Your task to perform on an android device: toggle notification dots Image 0: 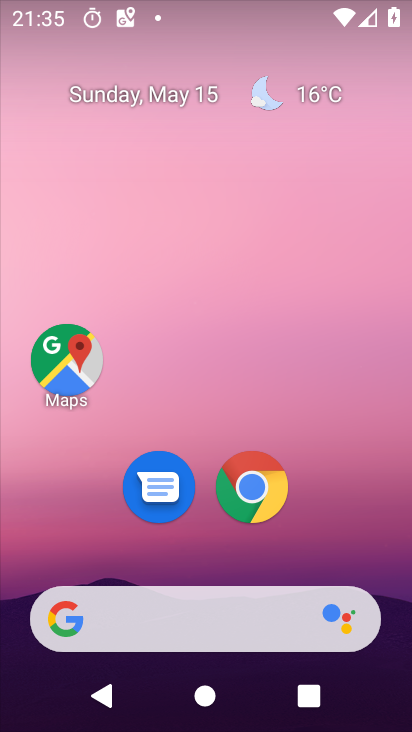
Step 0: drag from (387, 293) to (378, 116)
Your task to perform on an android device: toggle notification dots Image 1: 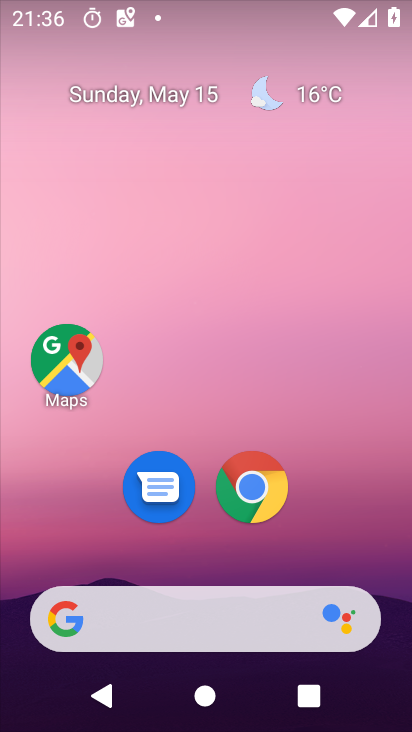
Step 1: drag from (369, 505) to (370, 189)
Your task to perform on an android device: toggle notification dots Image 2: 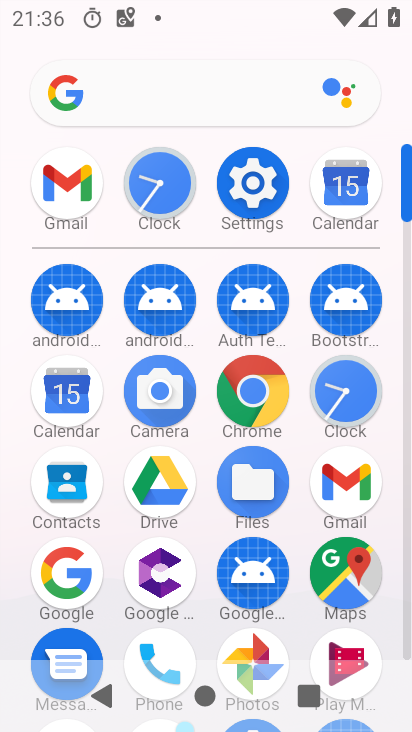
Step 2: click (244, 190)
Your task to perform on an android device: toggle notification dots Image 3: 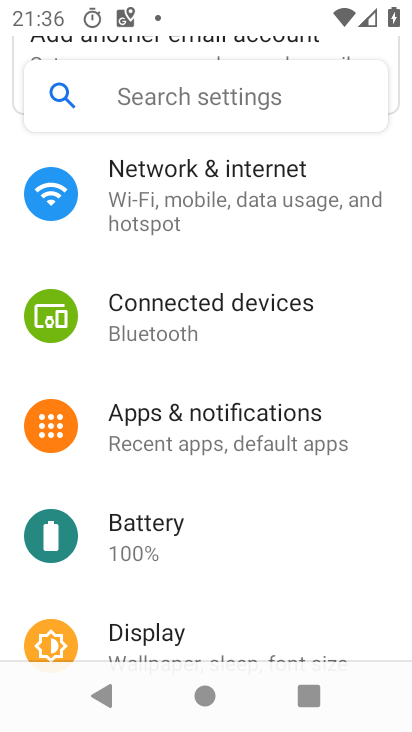
Step 3: click (175, 422)
Your task to perform on an android device: toggle notification dots Image 4: 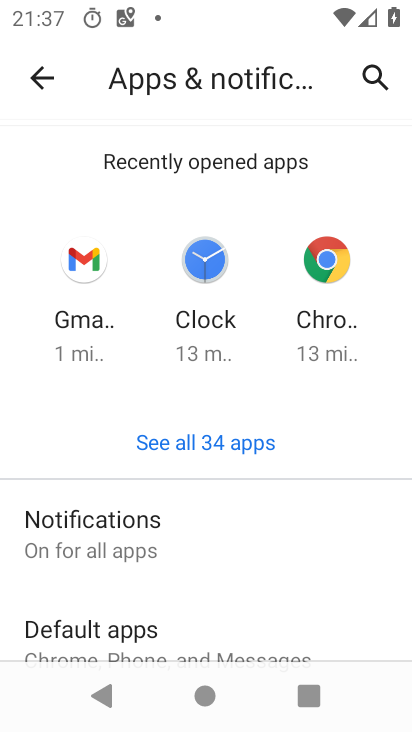
Step 4: click (61, 534)
Your task to perform on an android device: toggle notification dots Image 5: 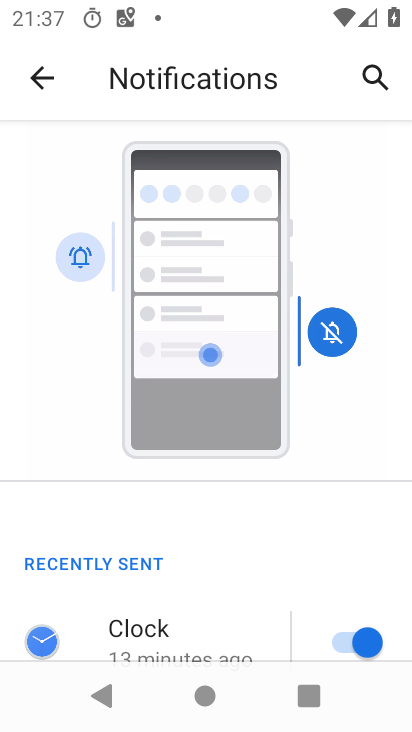
Step 5: drag from (238, 624) to (243, 275)
Your task to perform on an android device: toggle notification dots Image 6: 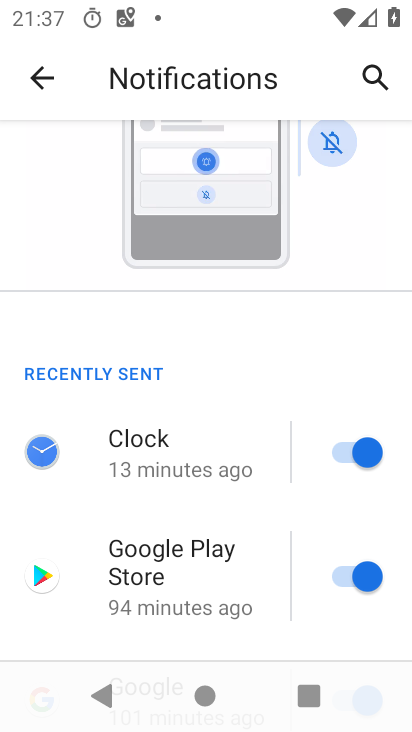
Step 6: drag from (271, 620) to (255, 309)
Your task to perform on an android device: toggle notification dots Image 7: 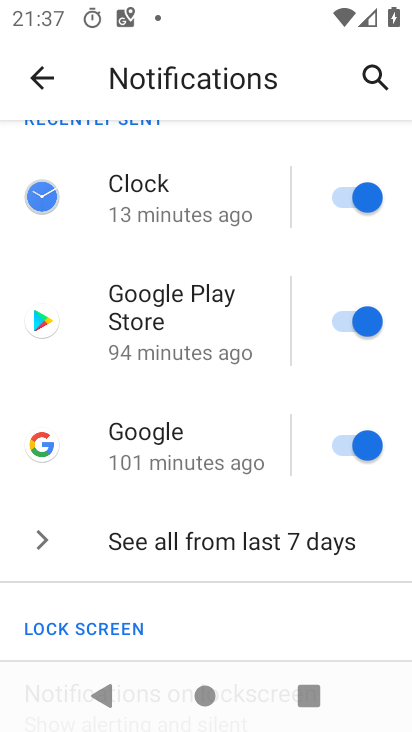
Step 7: drag from (244, 502) to (242, 393)
Your task to perform on an android device: toggle notification dots Image 8: 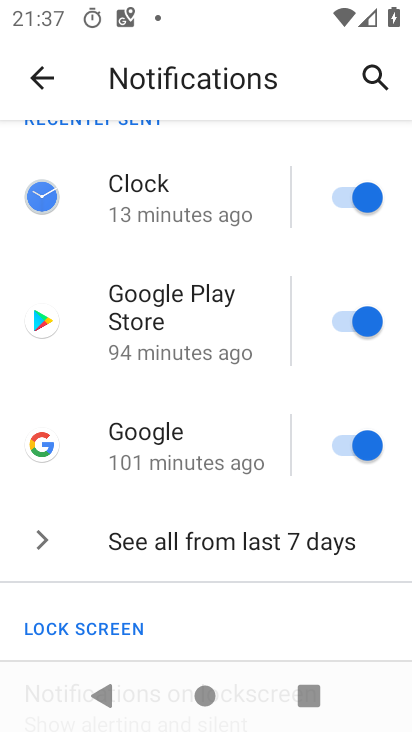
Step 8: drag from (242, 624) to (243, 331)
Your task to perform on an android device: toggle notification dots Image 9: 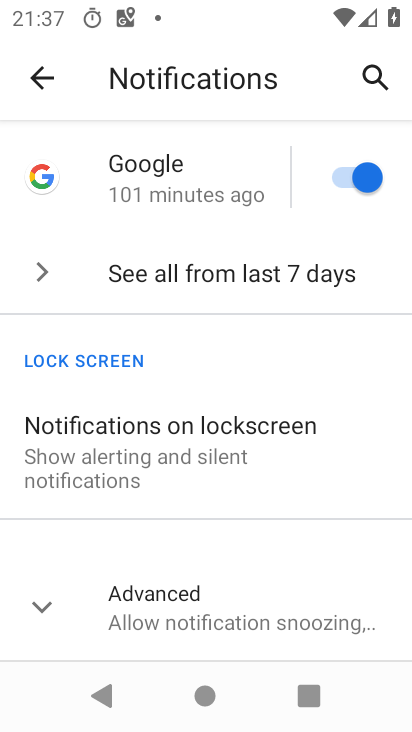
Step 9: drag from (251, 593) to (230, 315)
Your task to perform on an android device: toggle notification dots Image 10: 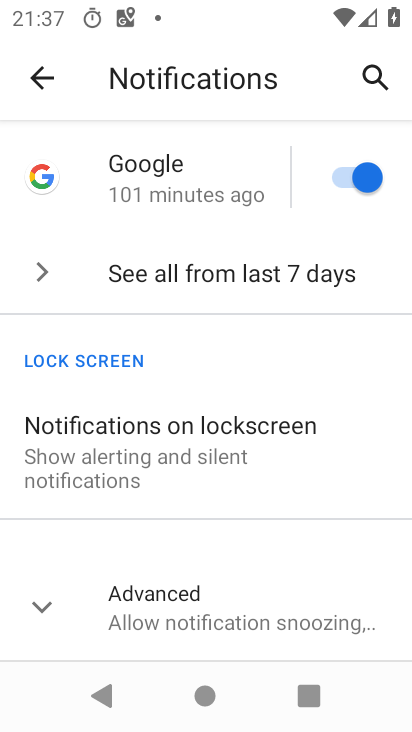
Step 10: drag from (232, 598) to (193, 397)
Your task to perform on an android device: toggle notification dots Image 11: 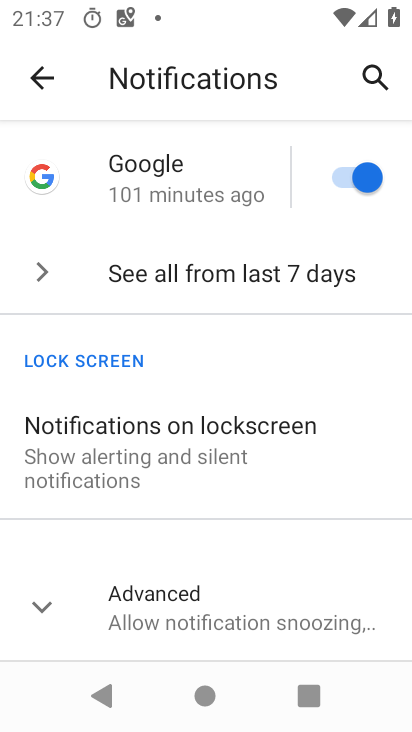
Step 11: click (50, 611)
Your task to perform on an android device: toggle notification dots Image 12: 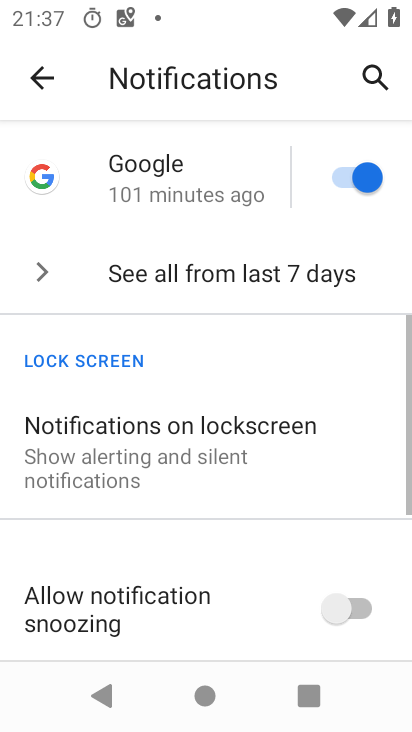
Step 12: drag from (264, 623) to (215, 339)
Your task to perform on an android device: toggle notification dots Image 13: 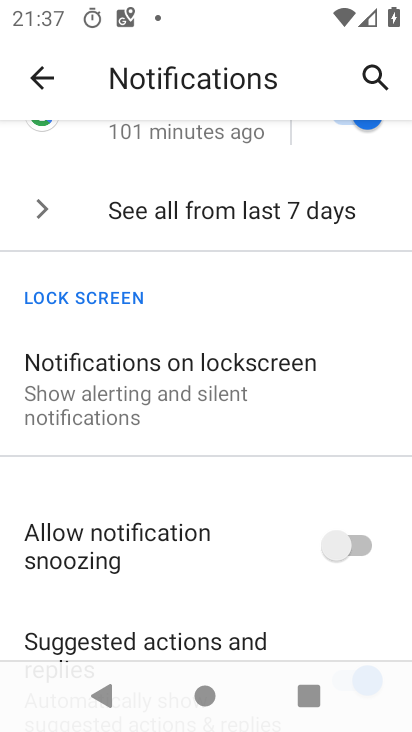
Step 13: drag from (246, 576) to (227, 366)
Your task to perform on an android device: toggle notification dots Image 14: 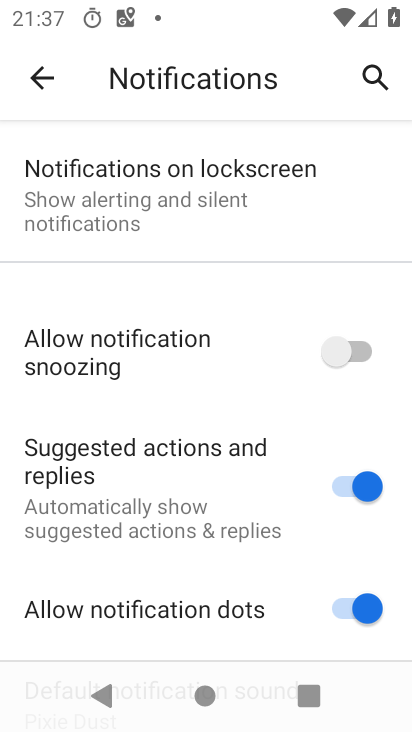
Step 14: drag from (268, 583) to (269, 305)
Your task to perform on an android device: toggle notification dots Image 15: 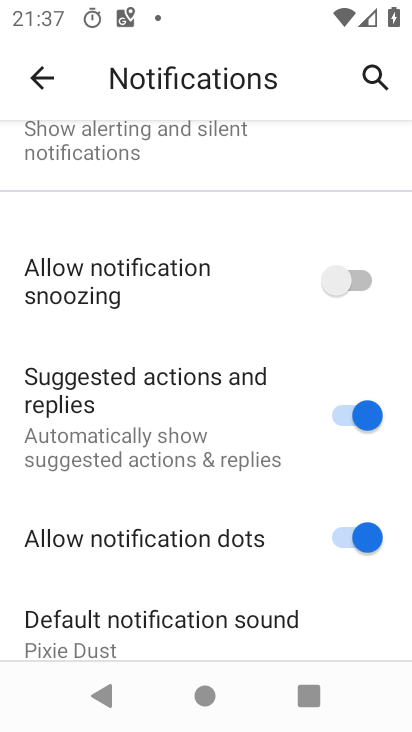
Step 15: click (340, 534)
Your task to perform on an android device: toggle notification dots Image 16: 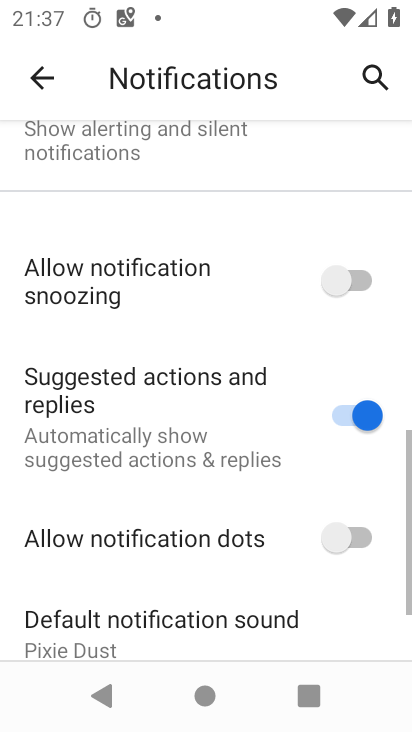
Step 16: task complete